Your task to perform on an android device: turn on wifi Image 0: 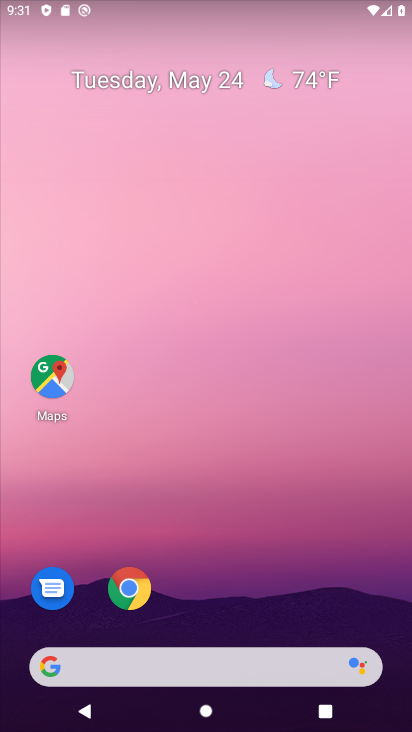
Step 0: drag from (239, 5) to (278, 484)
Your task to perform on an android device: turn on wifi Image 1: 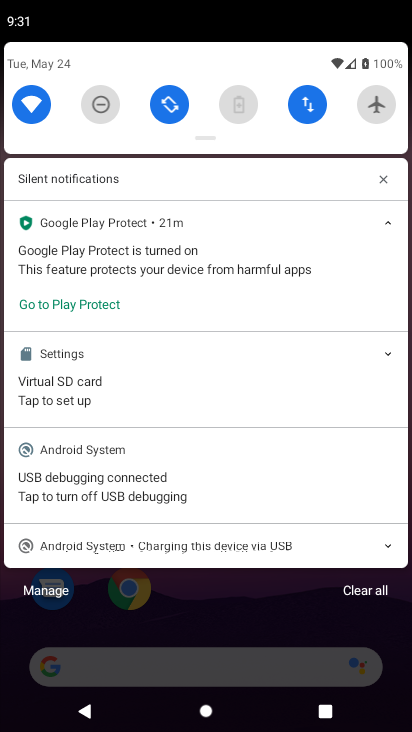
Step 1: task complete